Your task to perform on an android device: change the clock display to show seconds Image 0: 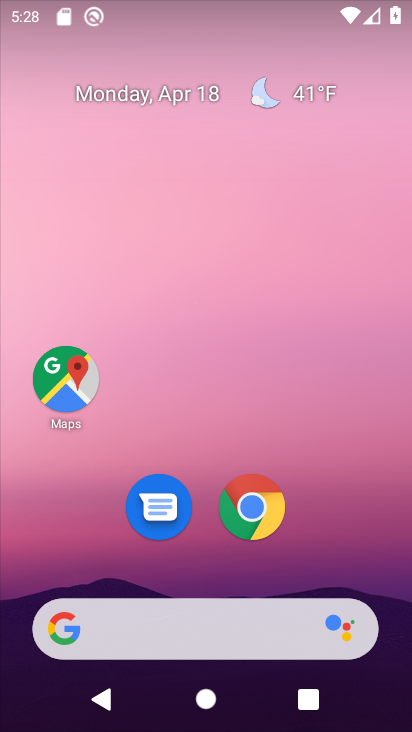
Step 0: drag from (198, 570) to (230, 5)
Your task to perform on an android device: change the clock display to show seconds Image 1: 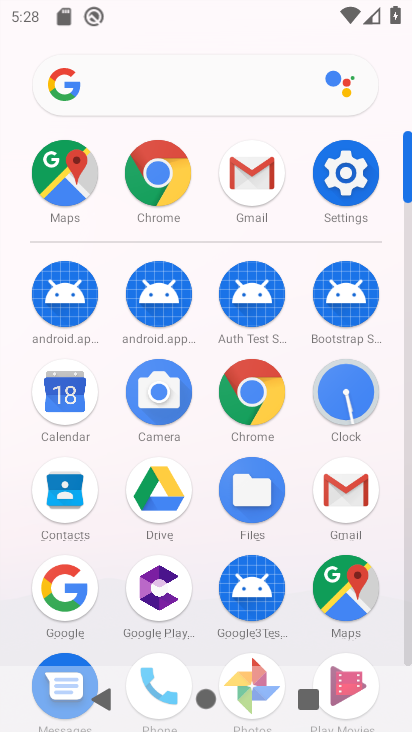
Step 1: click (354, 418)
Your task to perform on an android device: change the clock display to show seconds Image 2: 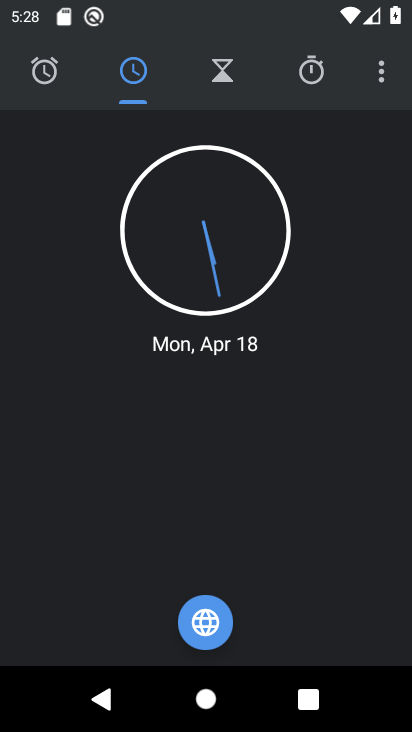
Step 2: click (365, 66)
Your task to perform on an android device: change the clock display to show seconds Image 3: 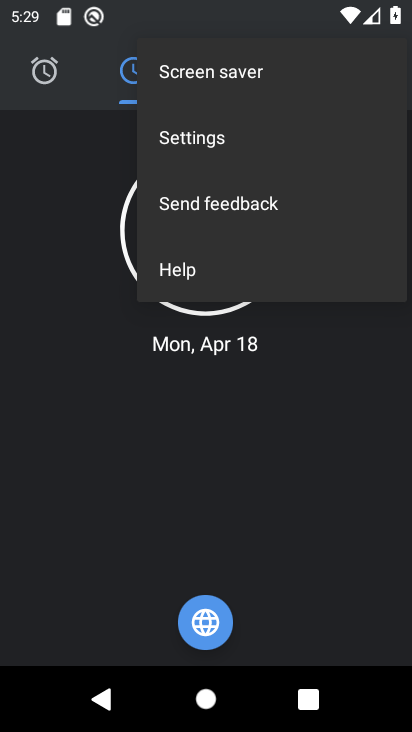
Step 3: click (265, 148)
Your task to perform on an android device: change the clock display to show seconds Image 4: 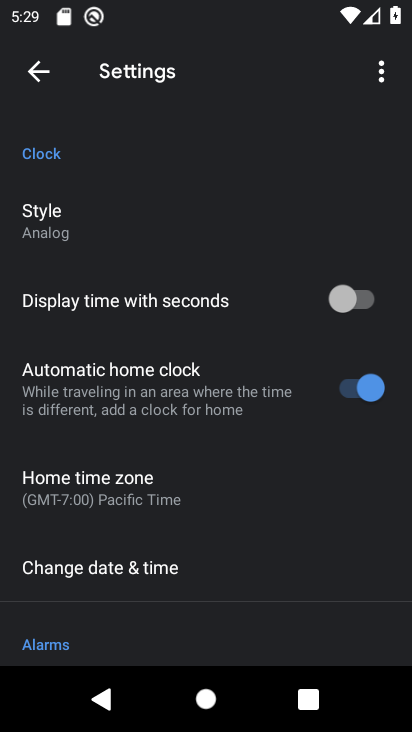
Step 4: click (350, 308)
Your task to perform on an android device: change the clock display to show seconds Image 5: 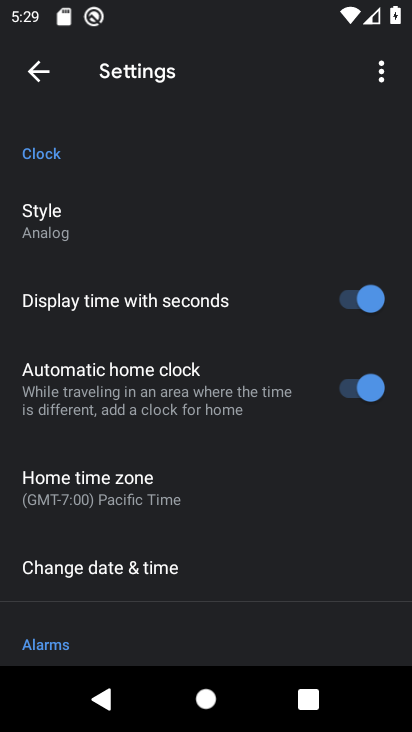
Step 5: task complete